Your task to perform on an android device: Go to accessibility settings Image 0: 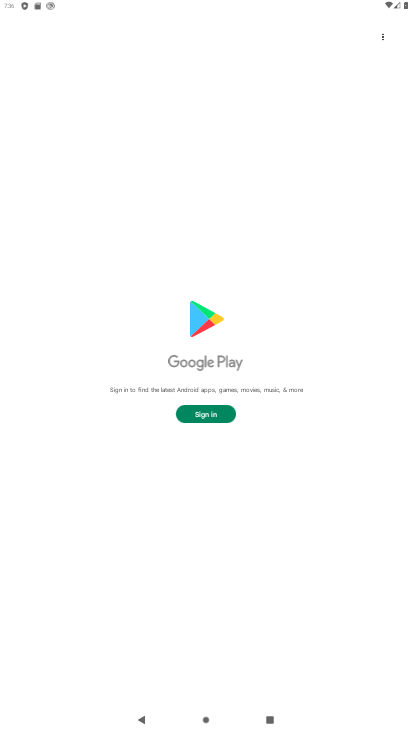
Step 0: press home button
Your task to perform on an android device: Go to accessibility settings Image 1: 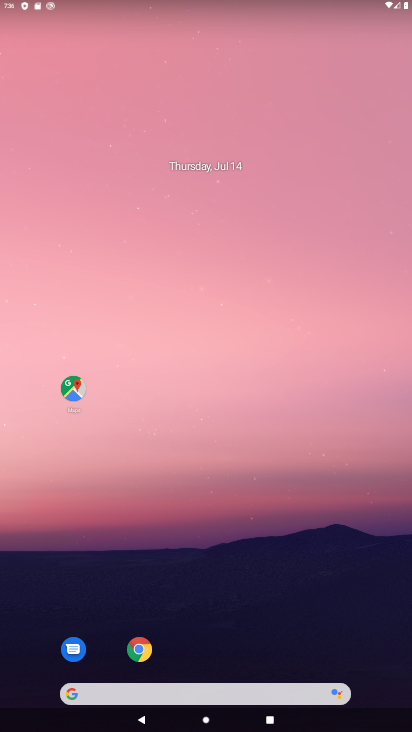
Step 1: drag from (246, 618) to (260, 58)
Your task to perform on an android device: Go to accessibility settings Image 2: 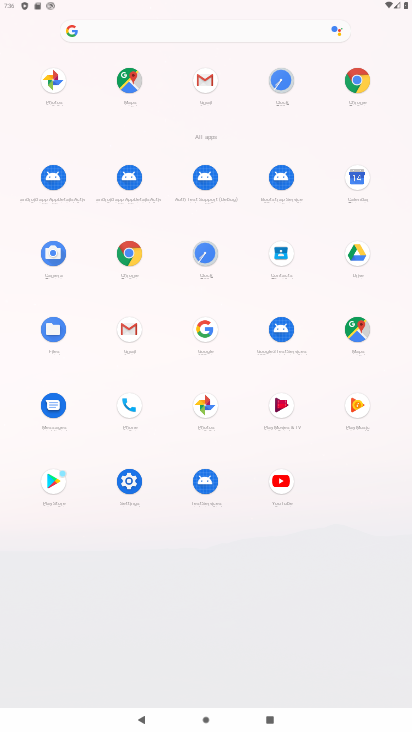
Step 2: click (137, 491)
Your task to perform on an android device: Go to accessibility settings Image 3: 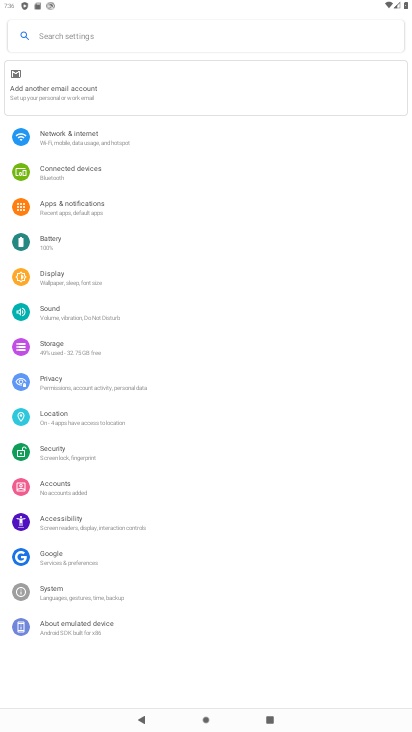
Step 3: click (88, 520)
Your task to perform on an android device: Go to accessibility settings Image 4: 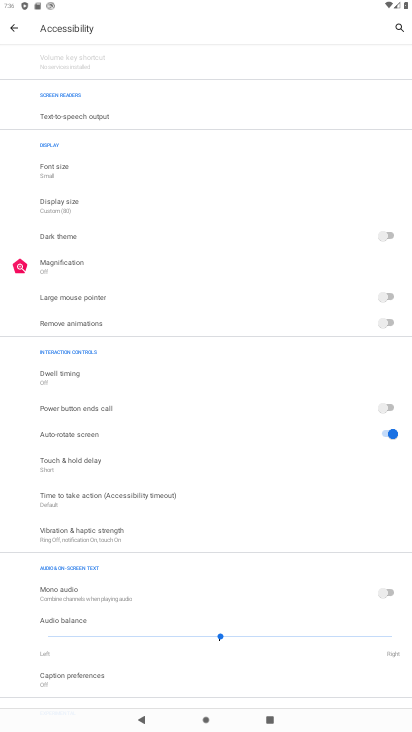
Step 4: task complete